Your task to perform on an android device: open a bookmark in the chrome app Image 0: 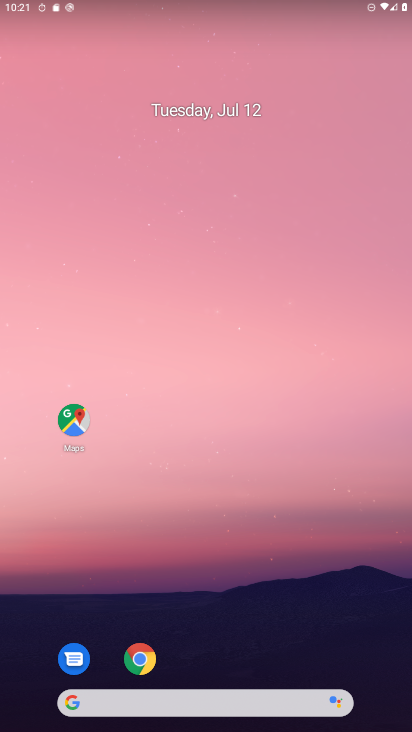
Step 0: click (143, 658)
Your task to perform on an android device: open a bookmark in the chrome app Image 1: 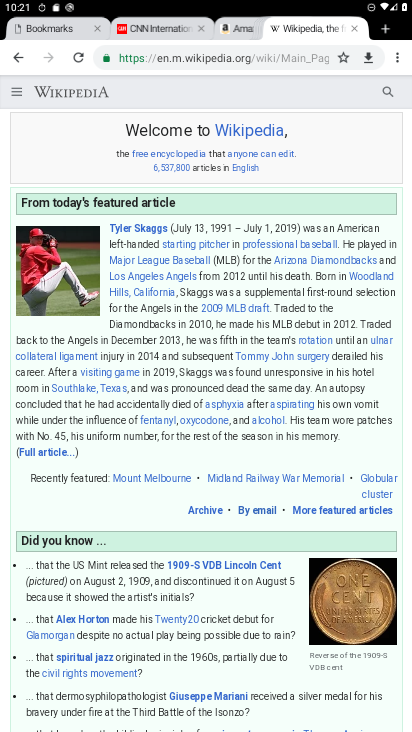
Step 1: click (396, 60)
Your task to perform on an android device: open a bookmark in the chrome app Image 2: 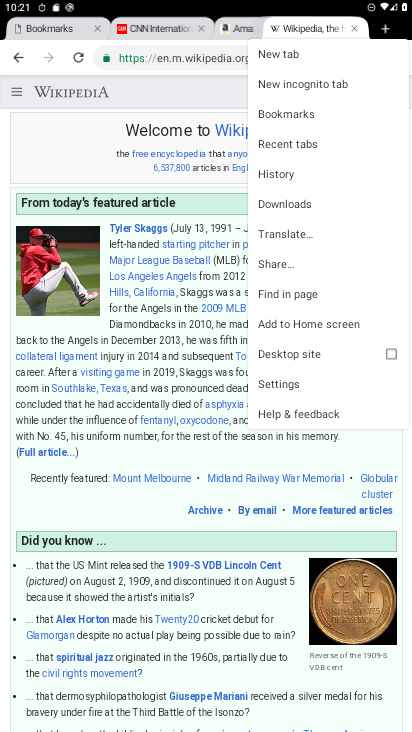
Step 2: click (289, 109)
Your task to perform on an android device: open a bookmark in the chrome app Image 3: 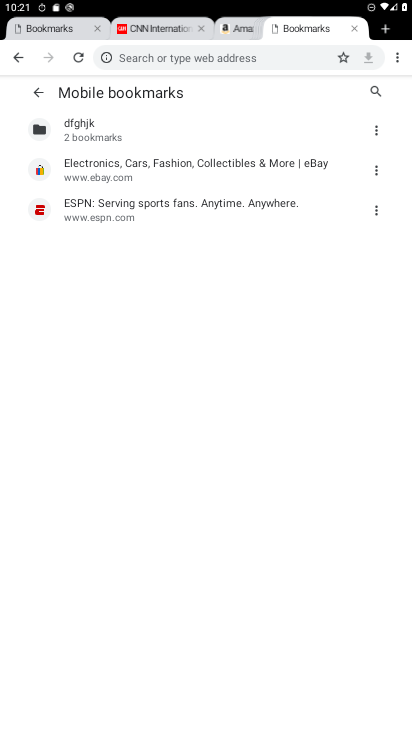
Step 3: task complete